Your task to perform on an android device: show emergency info Image 0: 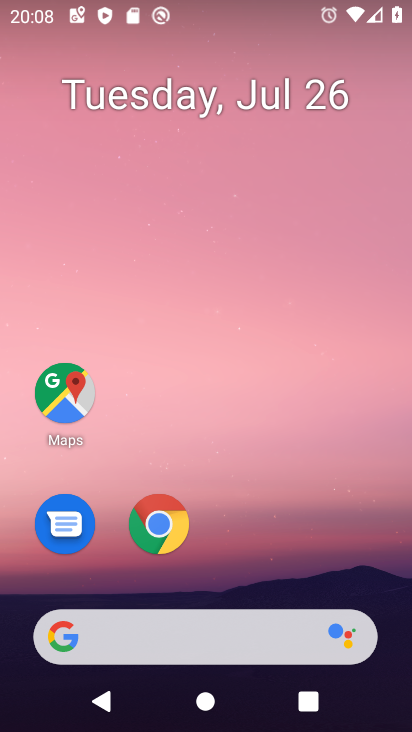
Step 0: drag from (238, 538) to (242, 13)
Your task to perform on an android device: show emergency info Image 1: 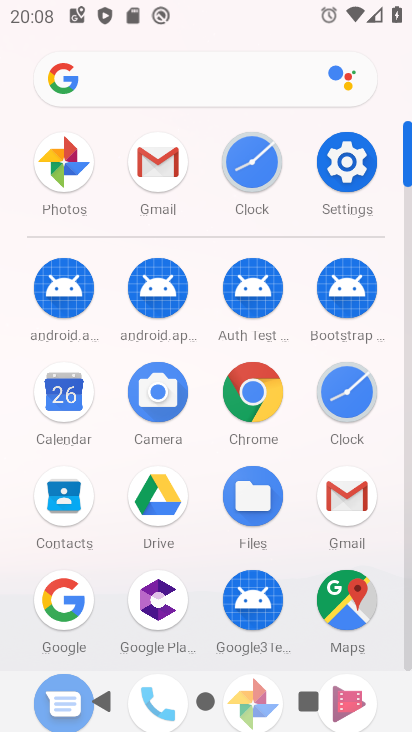
Step 1: click (347, 176)
Your task to perform on an android device: show emergency info Image 2: 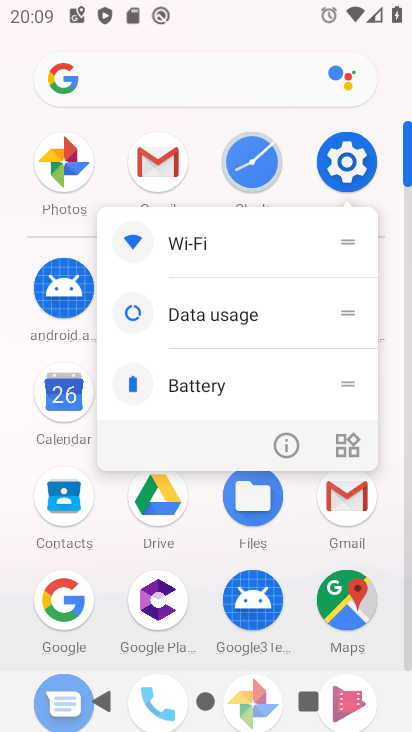
Step 2: click (345, 167)
Your task to perform on an android device: show emergency info Image 3: 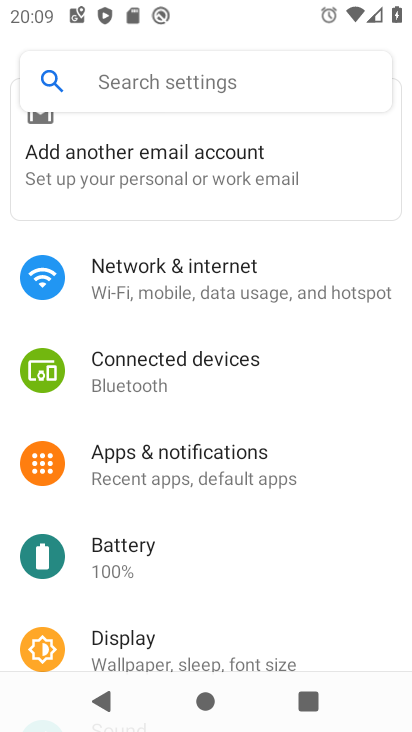
Step 3: drag from (200, 573) to (236, 5)
Your task to perform on an android device: show emergency info Image 4: 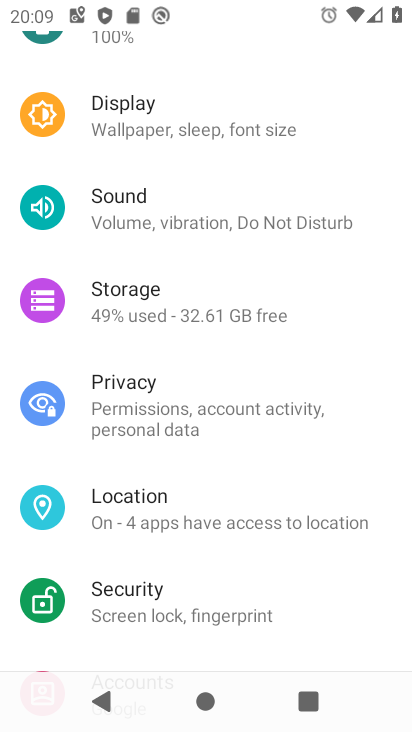
Step 4: drag from (196, 447) to (217, 42)
Your task to perform on an android device: show emergency info Image 5: 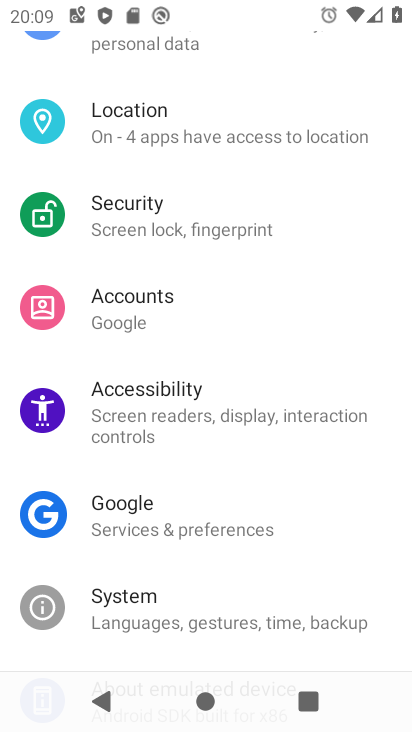
Step 5: drag from (211, 470) to (239, 53)
Your task to perform on an android device: show emergency info Image 6: 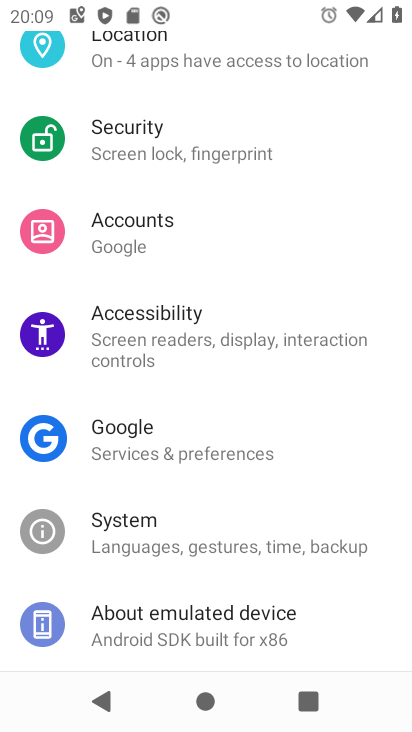
Step 6: click (188, 626)
Your task to perform on an android device: show emergency info Image 7: 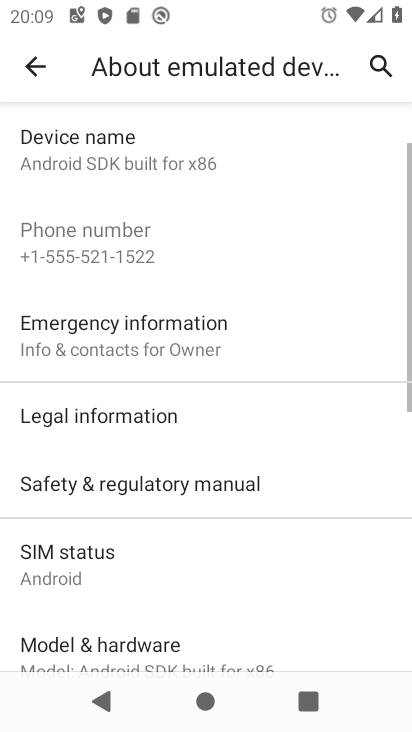
Step 7: drag from (247, 586) to (292, 159)
Your task to perform on an android device: show emergency info Image 8: 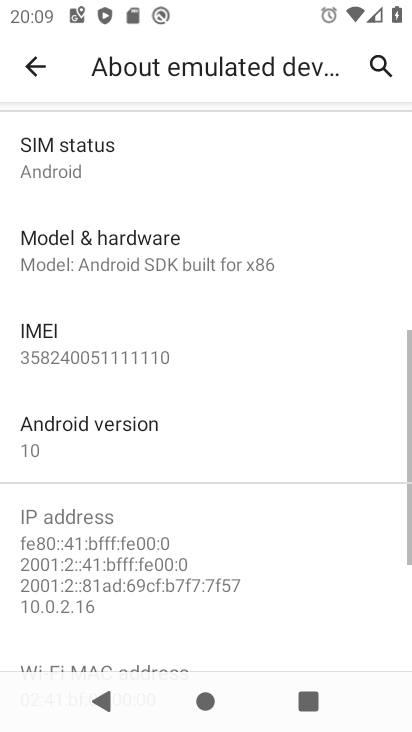
Step 8: drag from (226, 514) to (258, 158)
Your task to perform on an android device: show emergency info Image 9: 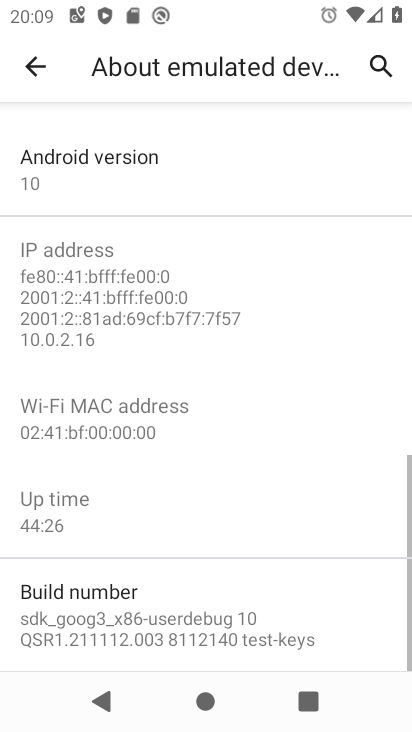
Step 9: drag from (224, 277) to (250, 625)
Your task to perform on an android device: show emergency info Image 10: 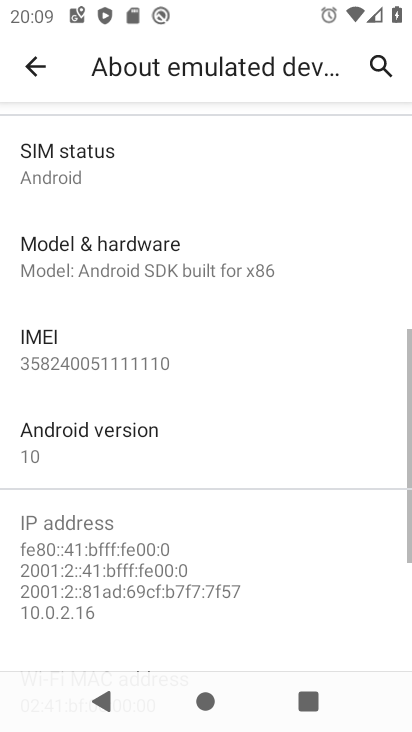
Step 10: drag from (217, 196) to (237, 650)
Your task to perform on an android device: show emergency info Image 11: 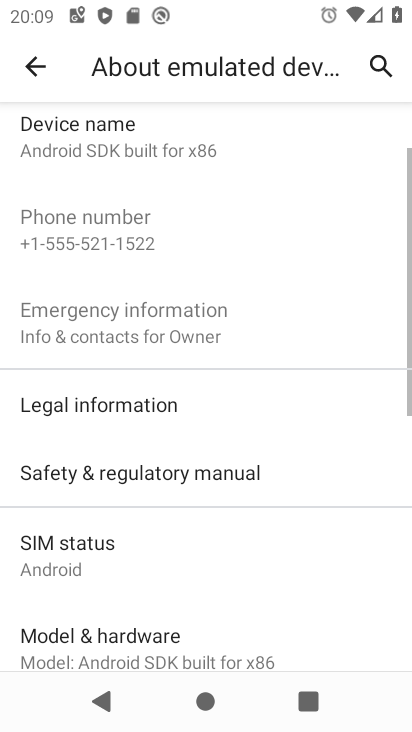
Step 11: click (162, 324)
Your task to perform on an android device: show emergency info Image 12: 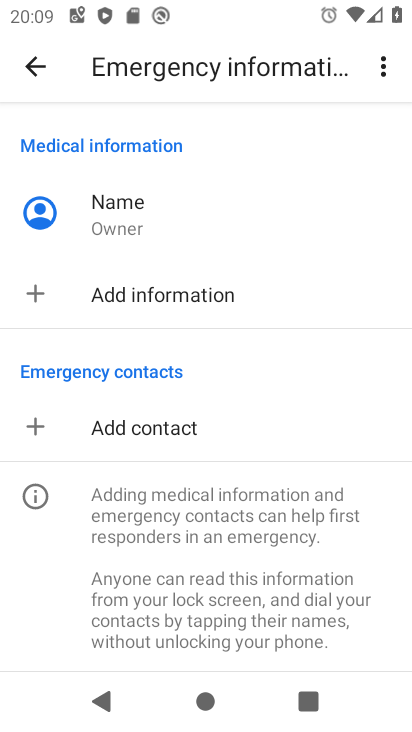
Step 12: task complete